Your task to perform on an android device: search for starred emails in the gmail app Image 0: 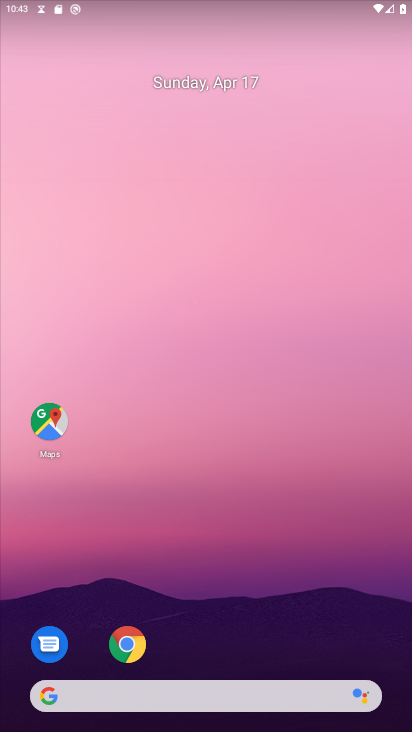
Step 0: drag from (250, 657) to (347, 90)
Your task to perform on an android device: search for starred emails in the gmail app Image 1: 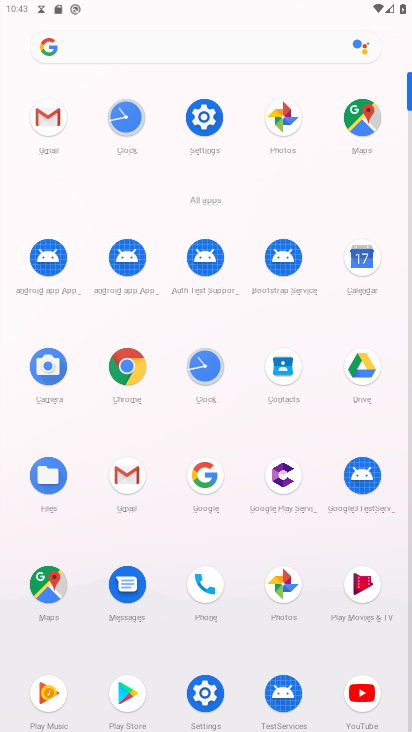
Step 1: click (128, 485)
Your task to perform on an android device: search for starred emails in the gmail app Image 2: 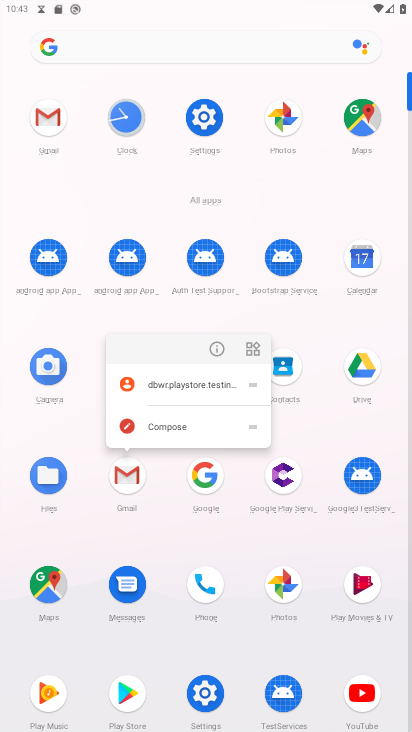
Step 2: click (130, 482)
Your task to perform on an android device: search for starred emails in the gmail app Image 3: 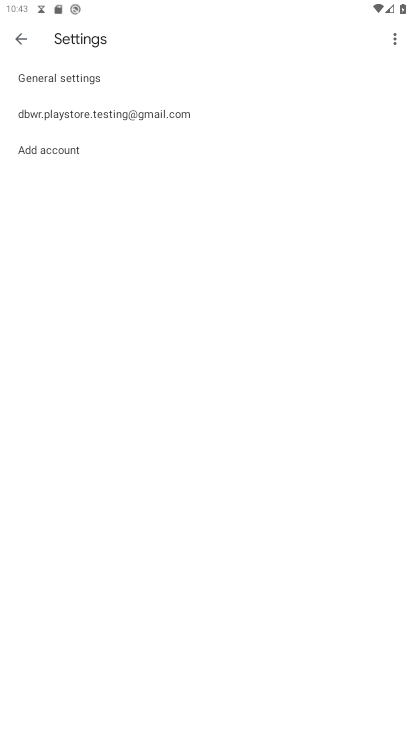
Step 3: click (20, 27)
Your task to perform on an android device: search for starred emails in the gmail app Image 4: 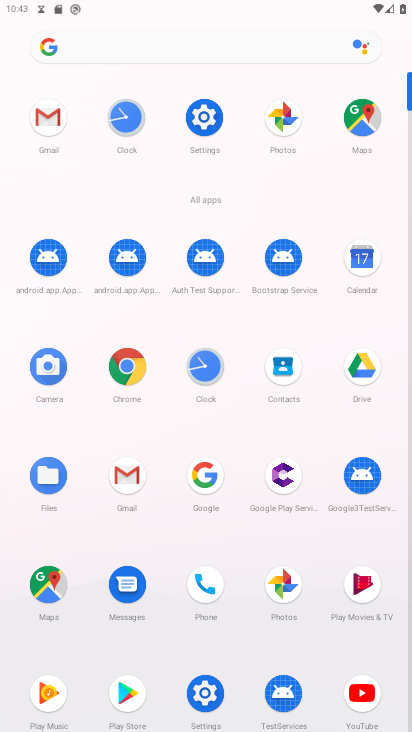
Step 4: click (135, 486)
Your task to perform on an android device: search for starred emails in the gmail app Image 5: 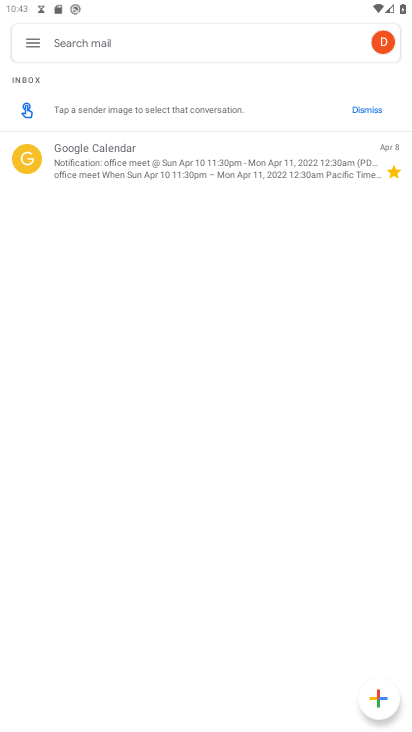
Step 5: click (30, 37)
Your task to perform on an android device: search for starred emails in the gmail app Image 6: 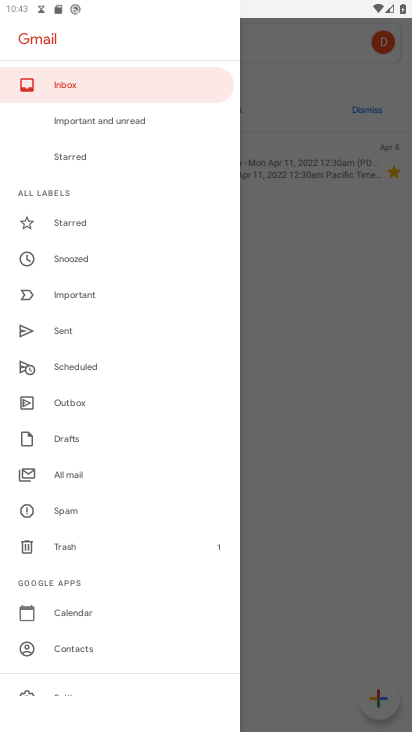
Step 6: click (71, 220)
Your task to perform on an android device: search for starred emails in the gmail app Image 7: 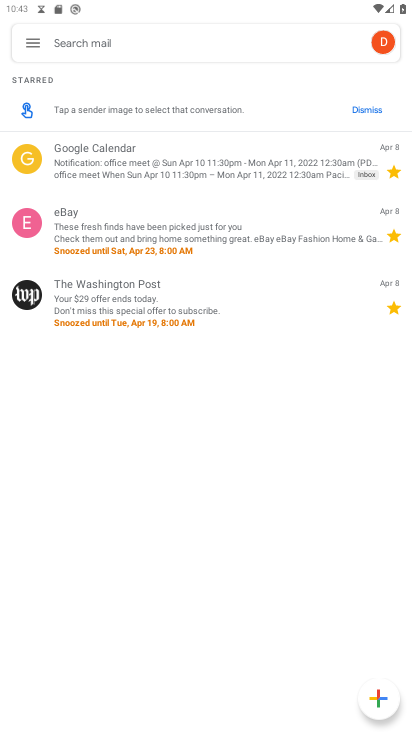
Step 7: task complete